Your task to perform on an android device: turn pop-ups on in chrome Image 0: 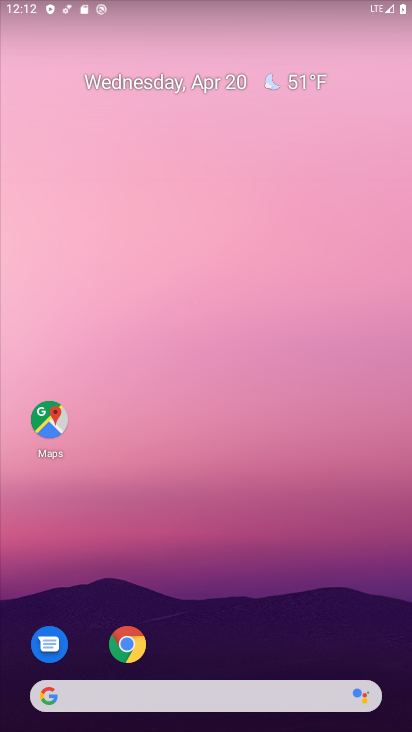
Step 0: click (128, 644)
Your task to perform on an android device: turn pop-ups on in chrome Image 1: 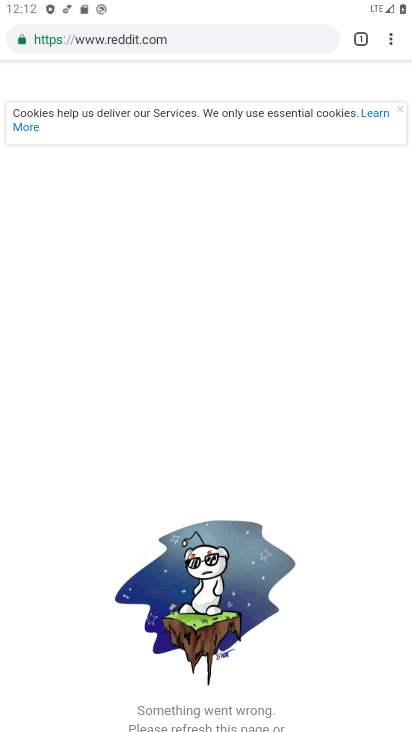
Step 1: click (390, 40)
Your task to perform on an android device: turn pop-ups on in chrome Image 2: 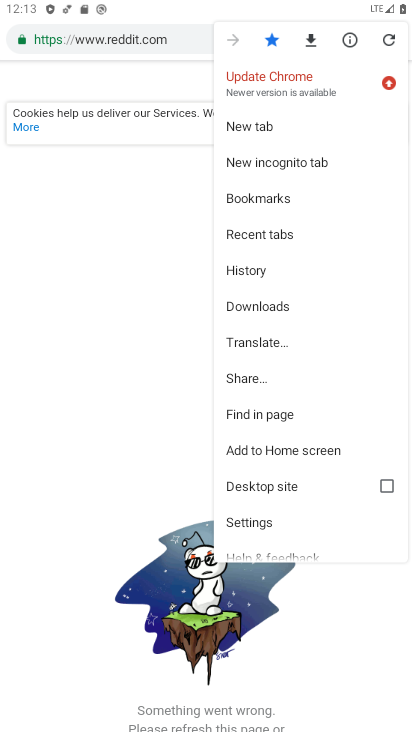
Step 2: click (253, 521)
Your task to perform on an android device: turn pop-ups on in chrome Image 3: 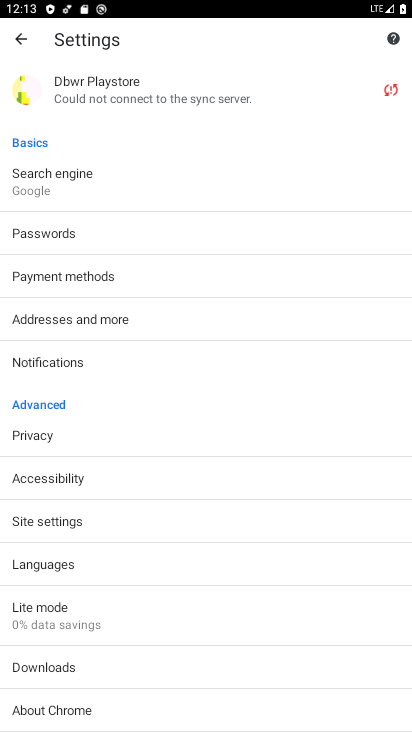
Step 3: click (66, 520)
Your task to perform on an android device: turn pop-ups on in chrome Image 4: 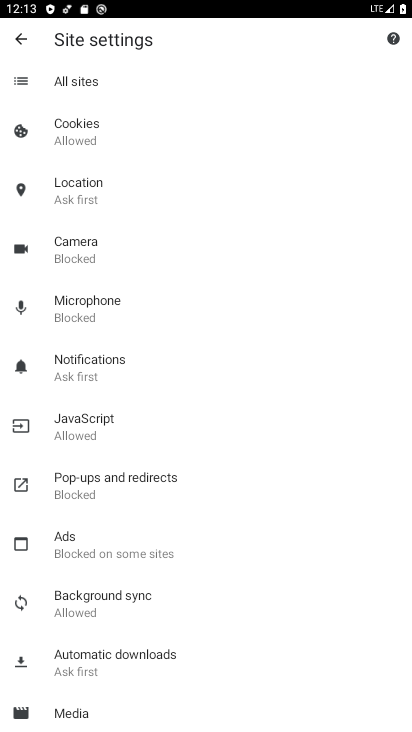
Step 4: drag from (190, 679) to (207, 201)
Your task to perform on an android device: turn pop-ups on in chrome Image 5: 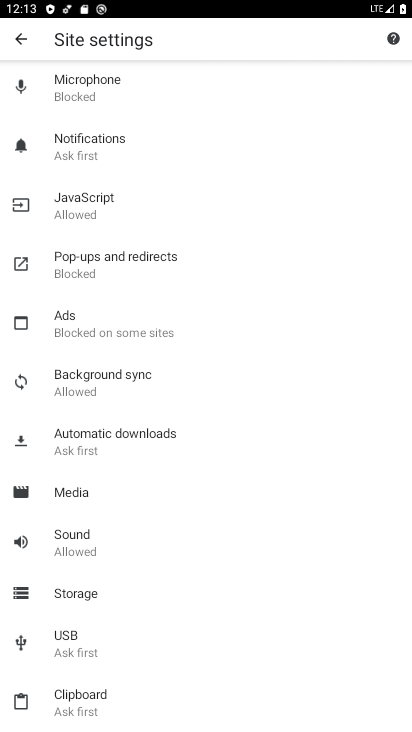
Step 5: drag from (234, 190) to (241, 551)
Your task to perform on an android device: turn pop-ups on in chrome Image 6: 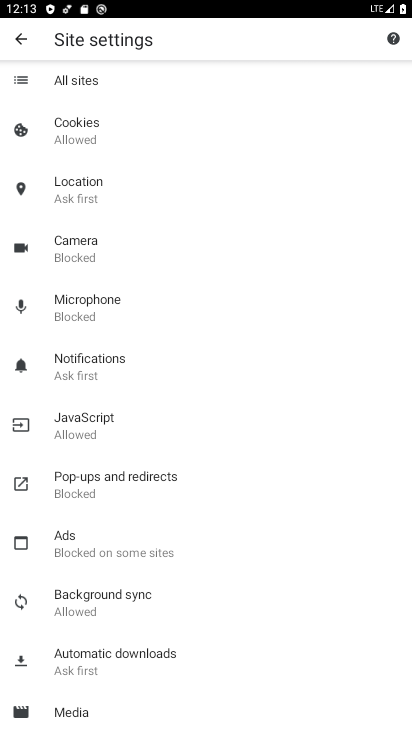
Step 6: click (116, 474)
Your task to perform on an android device: turn pop-ups on in chrome Image 7: 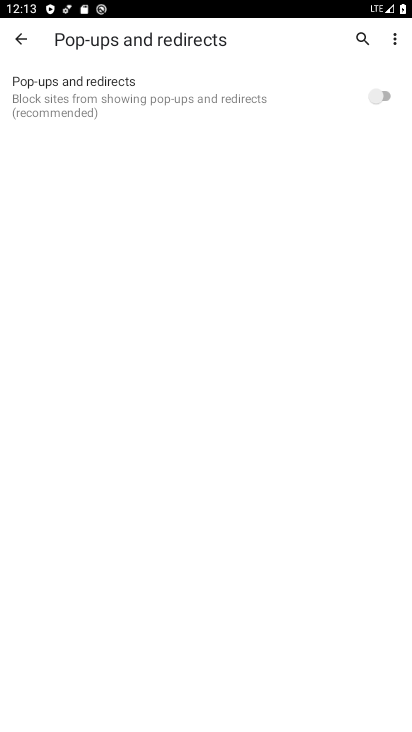
Step 7: click (387, 94)
Your task to perform on an android device: turn pop-ups on in chrome Image 8: 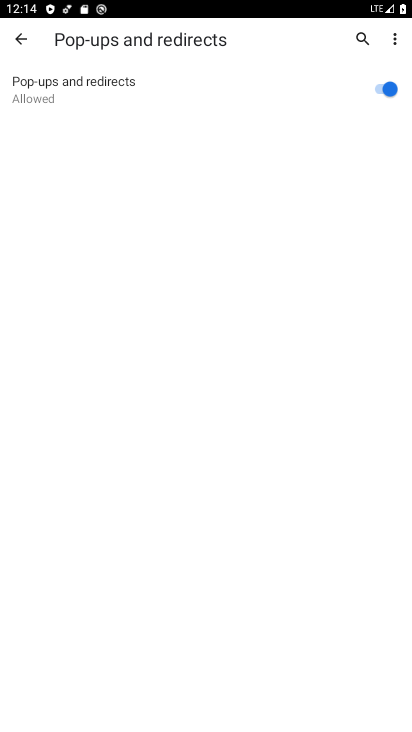
Step 8: task complete